Your task to perform on an android device: Clear the shopping cart on amazon. Add rayovac triple a to the cart on amazon, then select checkout. Image 0: 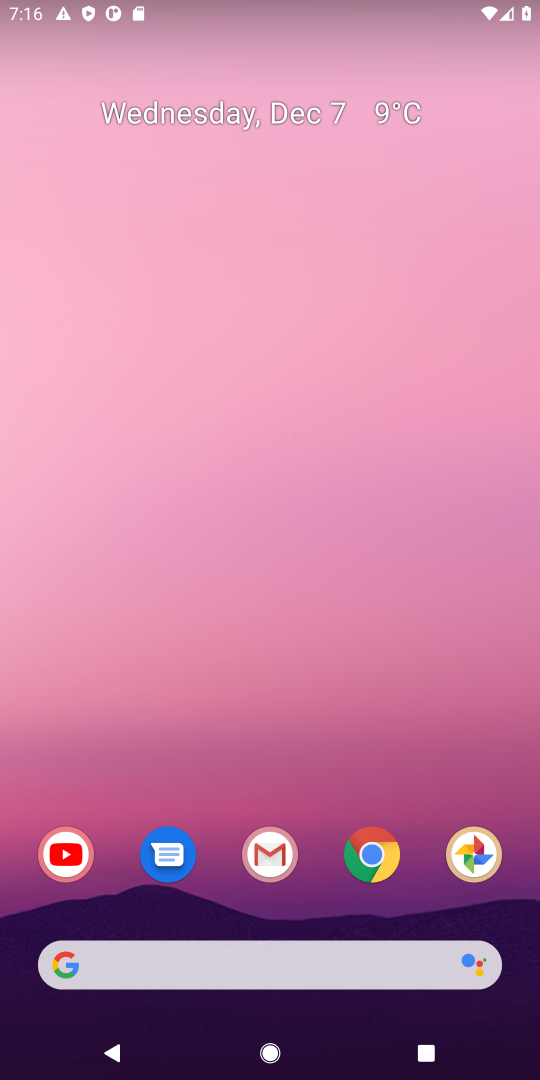
Step 0: click (200, 983)
Your task to perform on an android device: Clear the shopping cart on amazon. Add rayovac triple a to the cart on amazon, then select checkout. Image 1: 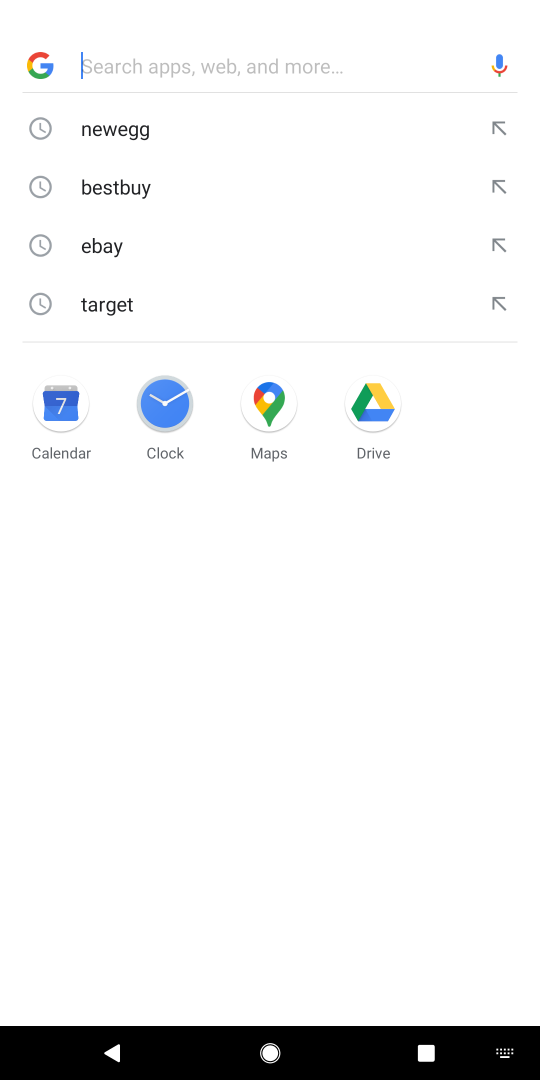
Step 1: type "amazon"
Your task to perform on an android device: Clear the shopping cart on amazon. Add rayovac triple a to the cart on amazon, then select checkout. Image 2: 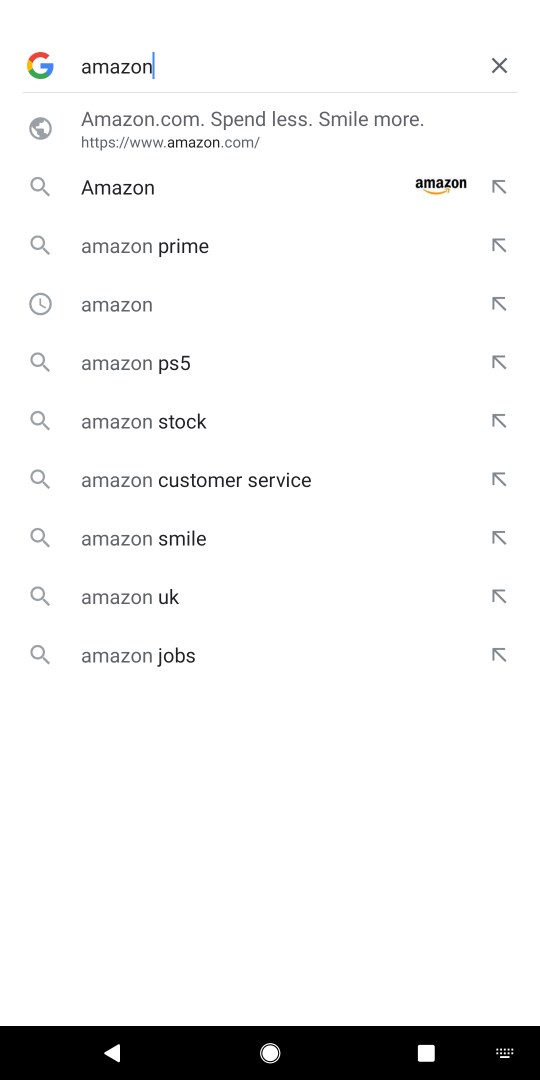
Step 2: click (223, 150)
Your task to perform on an android device: Clear the shopping cart on amazon. Add rayovac triple a to the cart on amazon, then select checkout. Image 3: 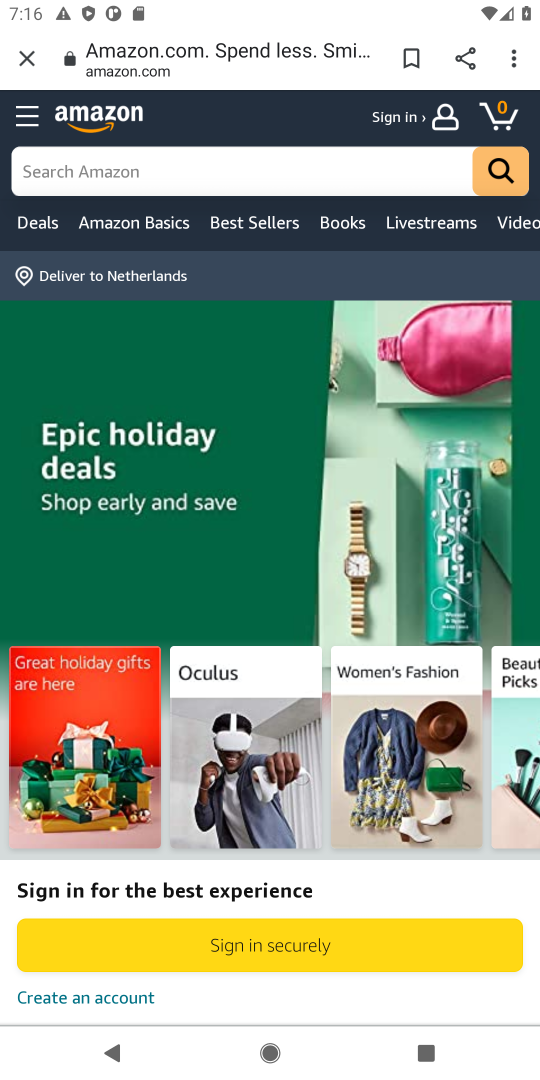
Step 3: click (231, 170)
Your task to perform on an android device: Clear the shopping cart on amazon. Add rayovac triple a to the cart on amazon, then select checkout. Image 4: 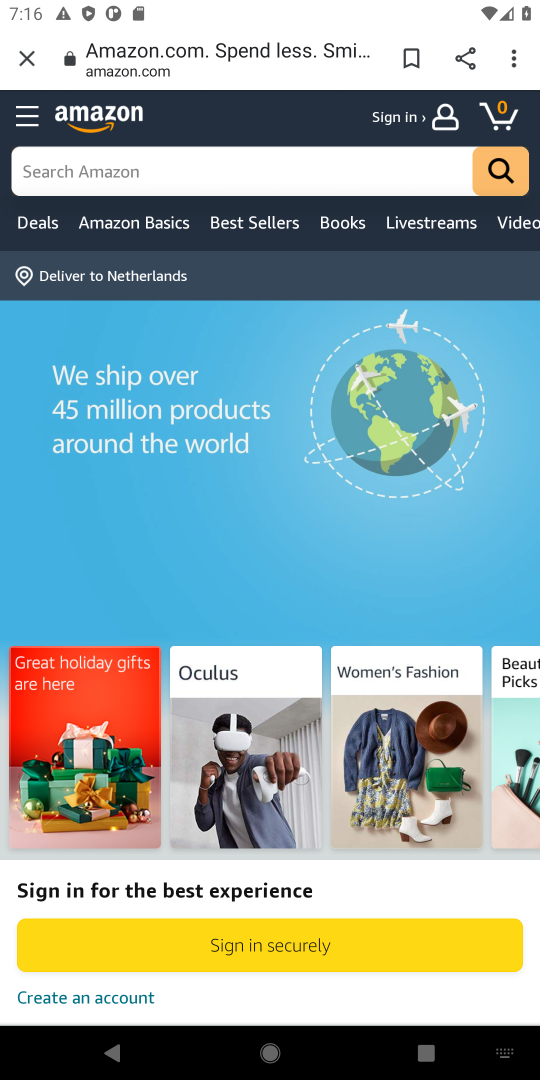
Step 4: type "rayovac"
Your task to perform on an android device: Clear the shopping cart on amazon. Add rayovac triple a to the cart on amazon, then select checkout. Image 5: 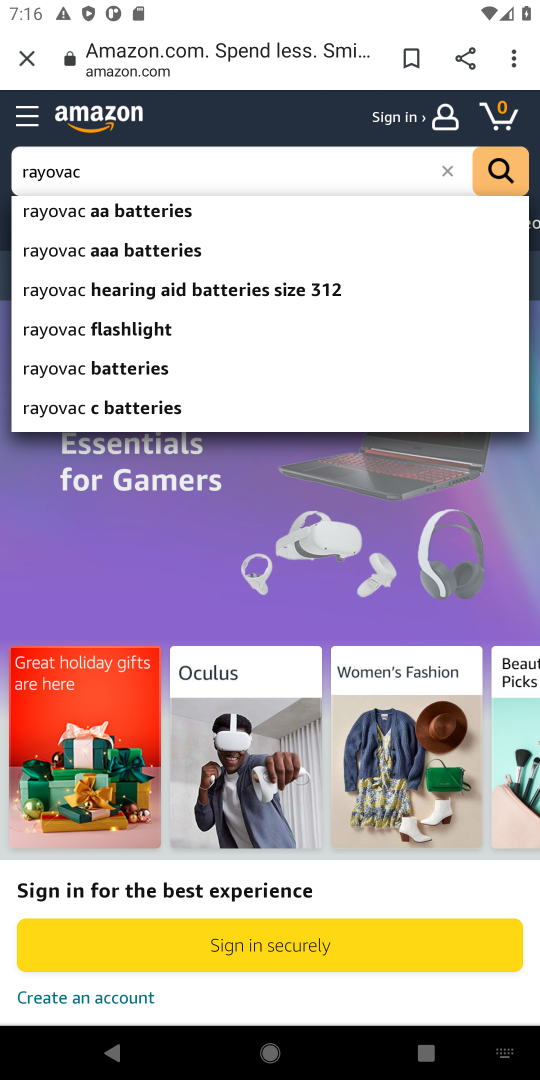
Step 5: click (150, 216)
Your task to perform on an android device: Clear the shopping cart on amazon. Add rayovac triple a to the cart on amazon, then select checkout. Image 6: 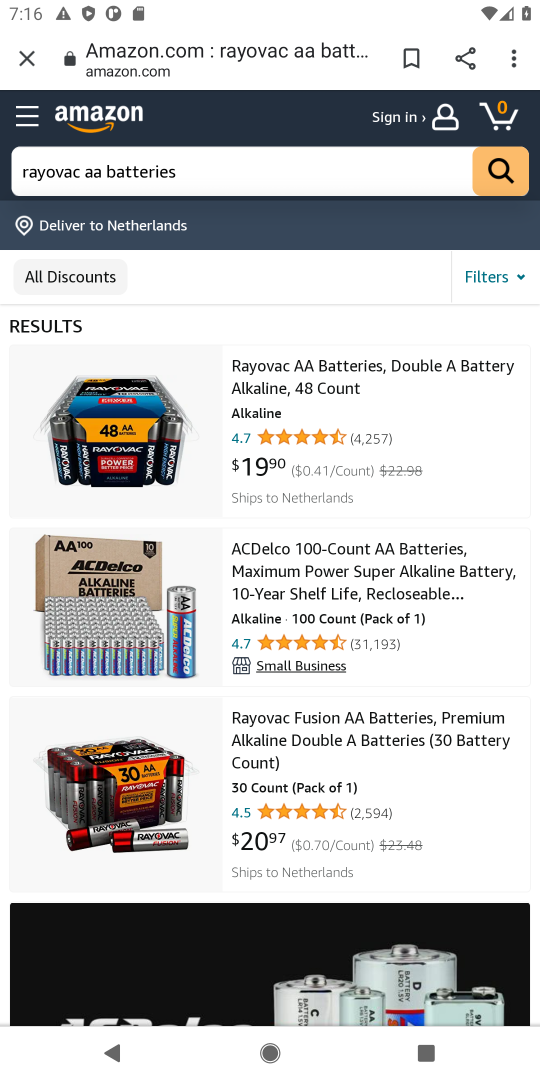
Step 6: click (281, 408)
Your task to perform on an android device: Clear the shopping cart on amazon. Add rayovac triple a to the cart on amazon, then select checkout. Image 7: 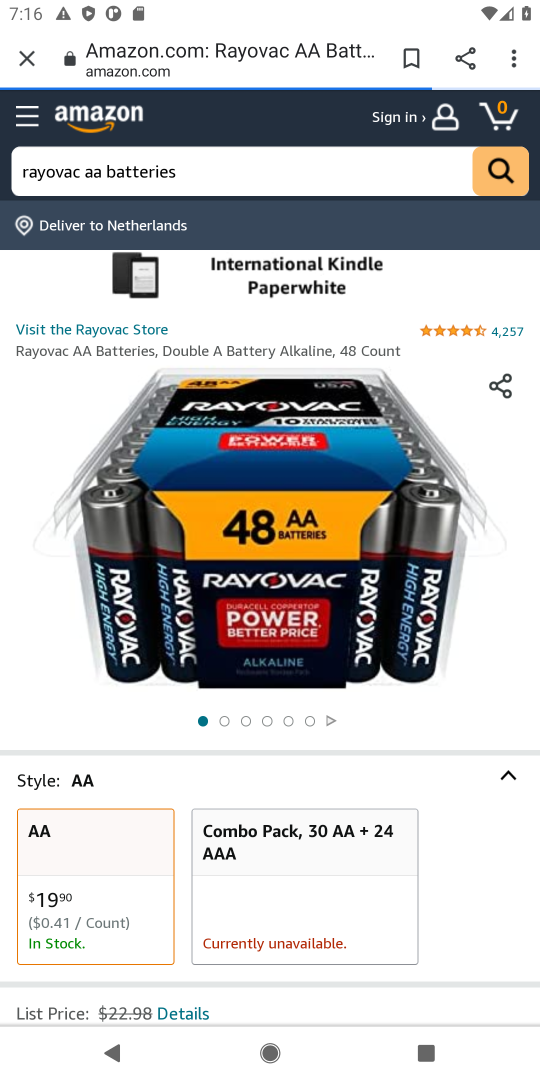
Step 7: drag from (469, 921) to (453, 368)
Your task to perform on an android device: Clear the shopping cart on amazon. Add rayovac triple a to the cart on amazon, then select checkout. Image 8: 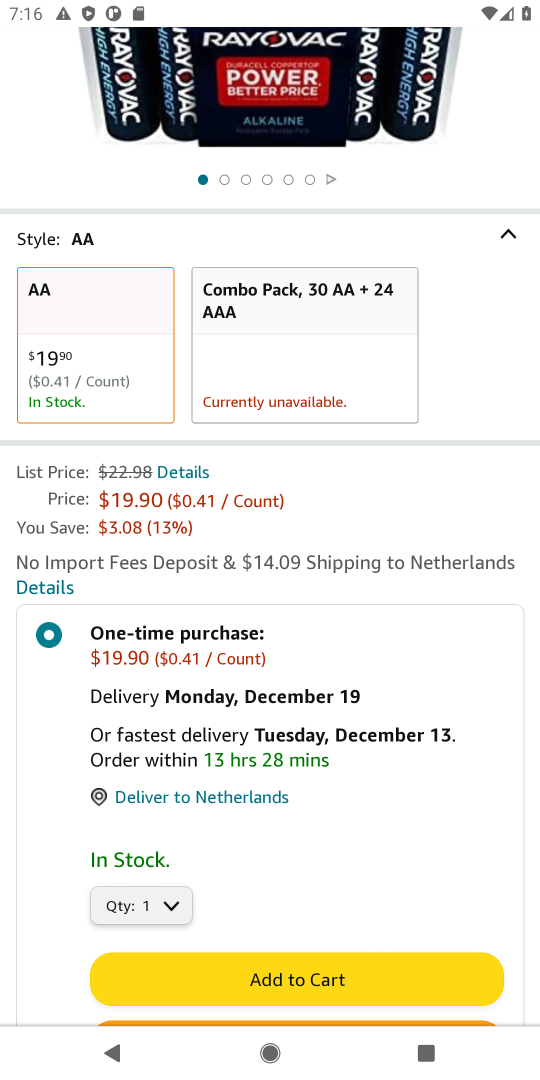
Step 8: click (384, 955)
Your task to perform on an android device: Clear the shopping cart on amazon. Add rayovac triple a to the cart on amazon, then select checkout. Image 9: 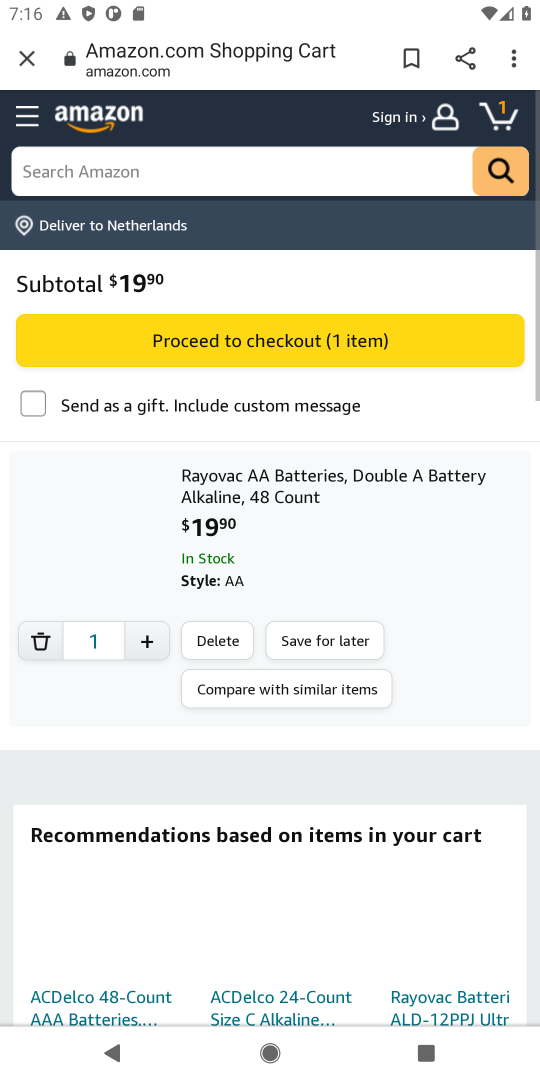
Step 9: task complete